Your task to perform on an android device: Show me popular games on the Play Store Image 0: 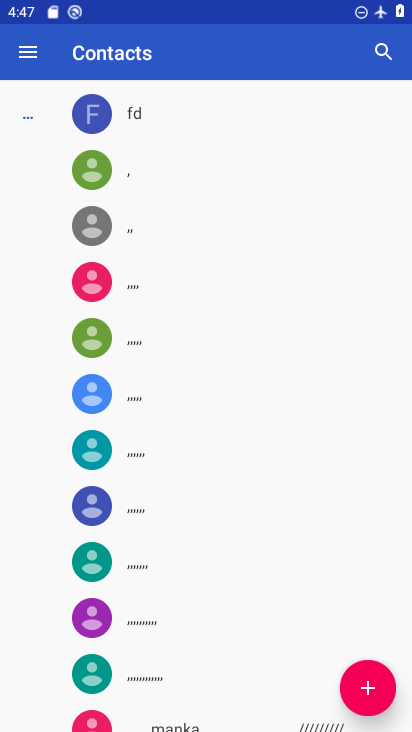
Step 0: press home button
Your task to perform on an android device: Show me popular games on the Play Store Image 1: 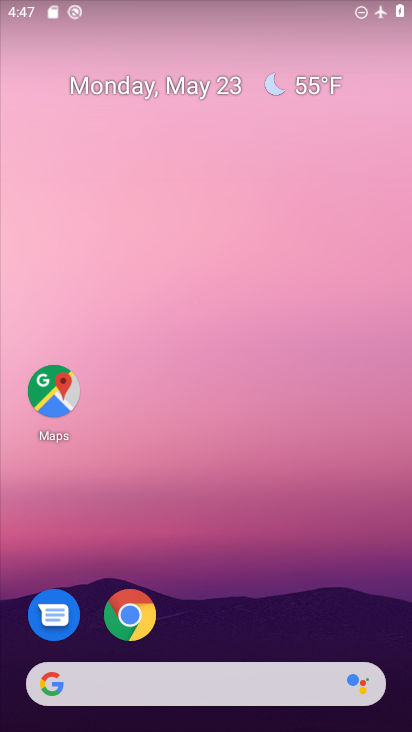
Step 1: drag from (379, 631) to (366, 203)
Your task to perform on an android device: Show me popular games on the Play Store Image 2: 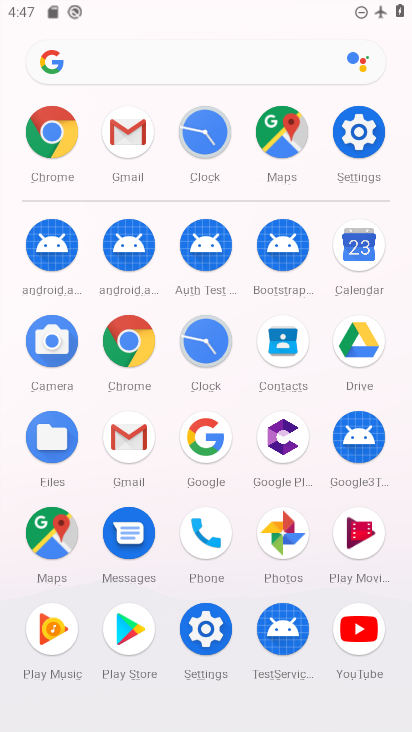
Step 2: click (130, 631)
Your task to perform on an android device: Show me popular games on the Play Store Image 3: 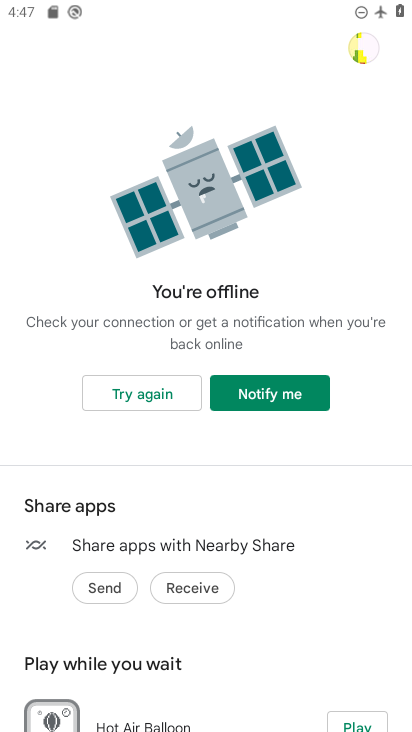
Step 3: click (152, 384)
Your task to perform on an android device: Show me popular games on the Play Store Image 4: 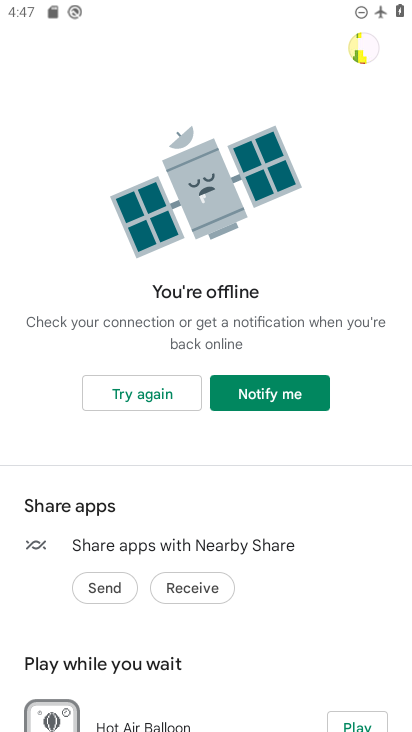
Step 4: click (178, 395)
Your task to perform on an android device: Show me popular games on the Play Store Image 5: 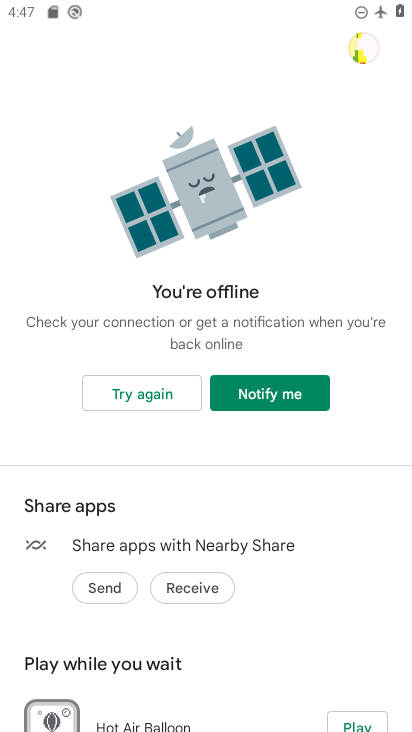
Step 5: task complete